Your task to perform on an android device: Open the map Image 0: 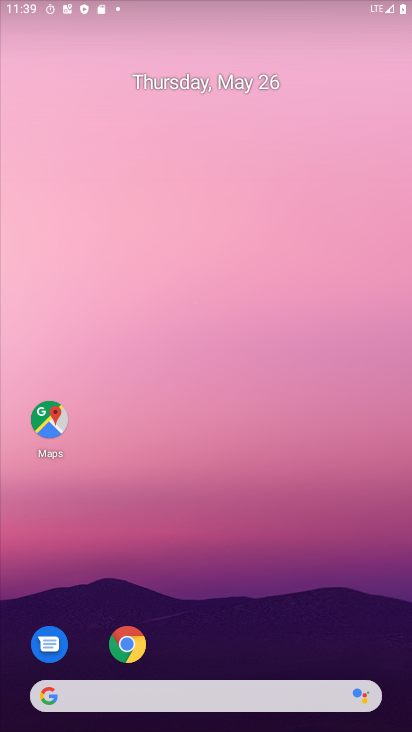
Step 0: drag from (143, 701) to (254, 99)
Your task to perform on an android device: Open the map Image 1: 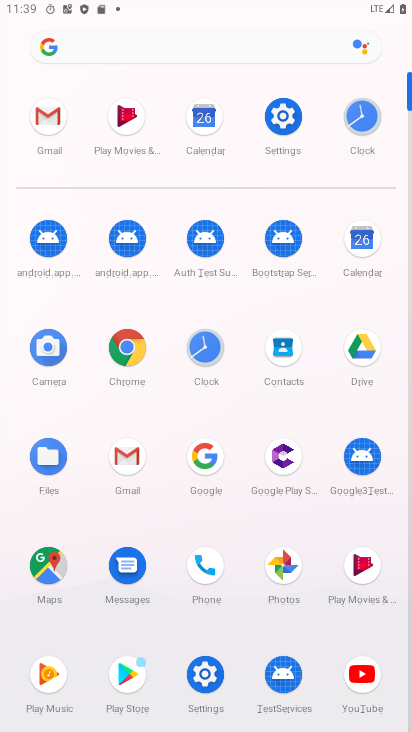
Step 1: click (46, 574)
Your task to perform on an android device: Open the map Image 2: 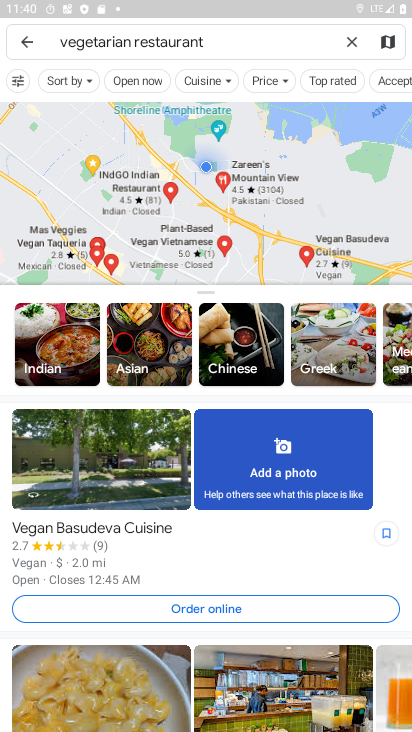
Step 2: task complete